Your task to perform on an android device: turn smart compose on in the gmail app Image 0: 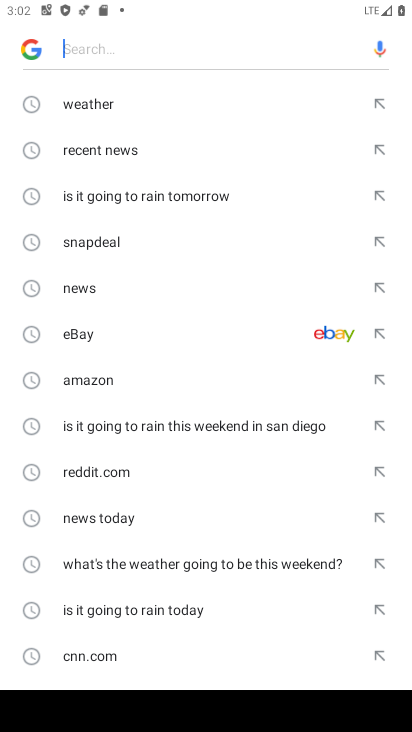
Step 0: press back button
Your task to perform on an android device: turn smart compose on in the gmail app Image 1: 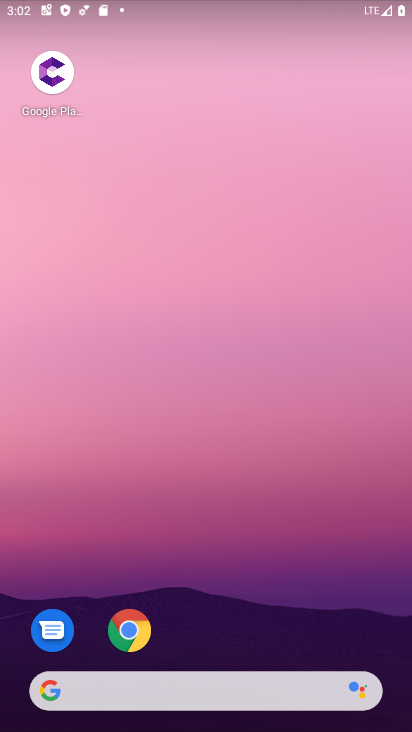
Step 1: drag from (198, 727) to (174, 42)
Your task to perform on an android device: turn smart compose on in the gmail app Image 2: 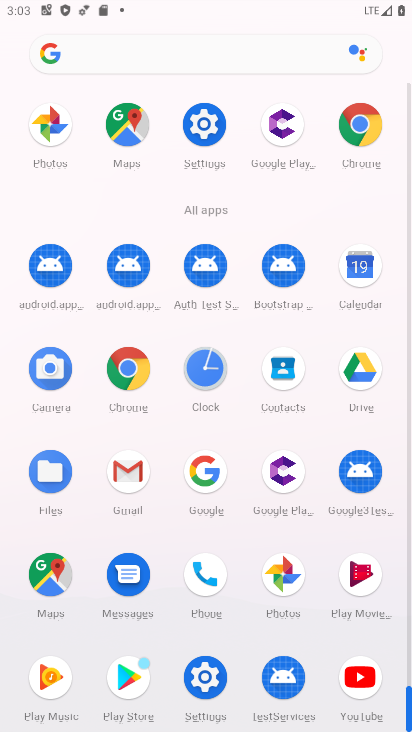
Step 2: click (126, 469)
Your task to perform on an android device: turn smart compose on in the gmail app Image 3: 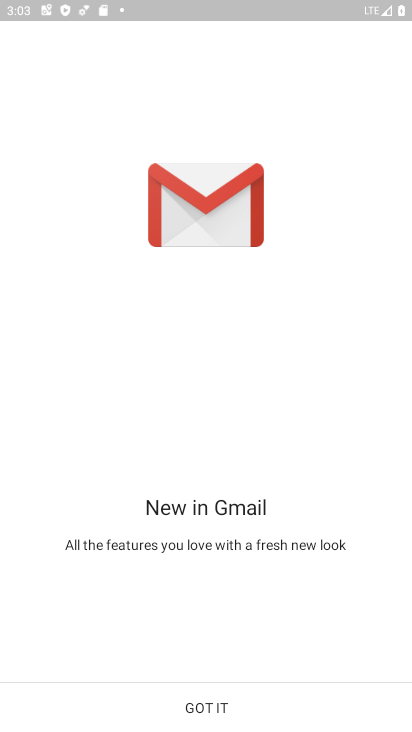
Step 3: click (211, 703)
Your task to perform on an android device: turn smart compose on in the gmail app Image 4: 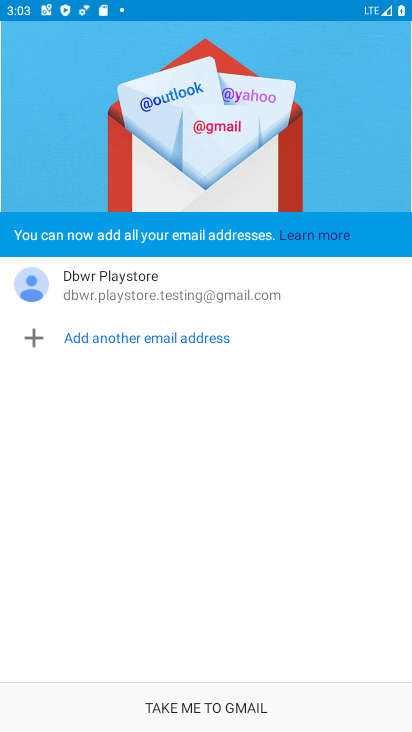
Step 4: click (211, 703)
Your task to perform on an android device: turn smart compose on in the gmail app Image 5: 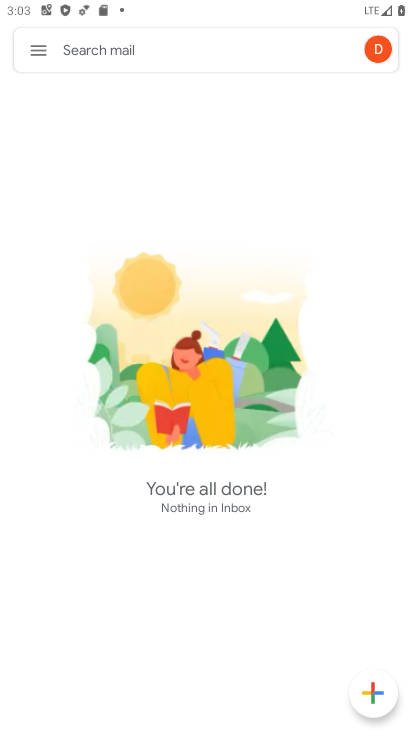
Step 5: click (40, 50)
Your task to perform on an android device: turn smart compose on in the gmail app Image 6: 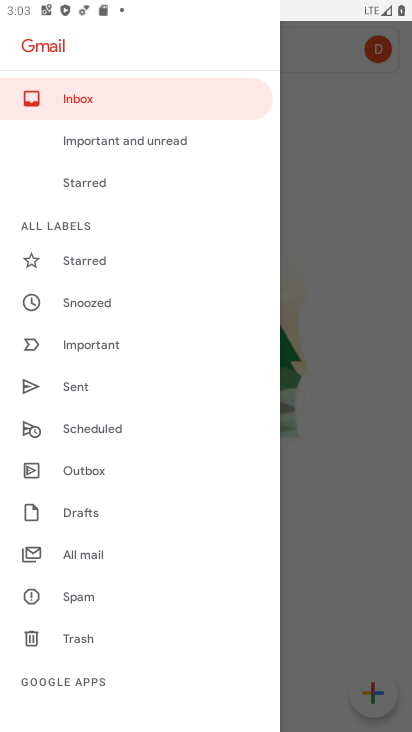
Step 6: drag from (102, 668) to (104, 180)
Your task to perform on an android device: turn smart compose on in the gmail app Image 7: 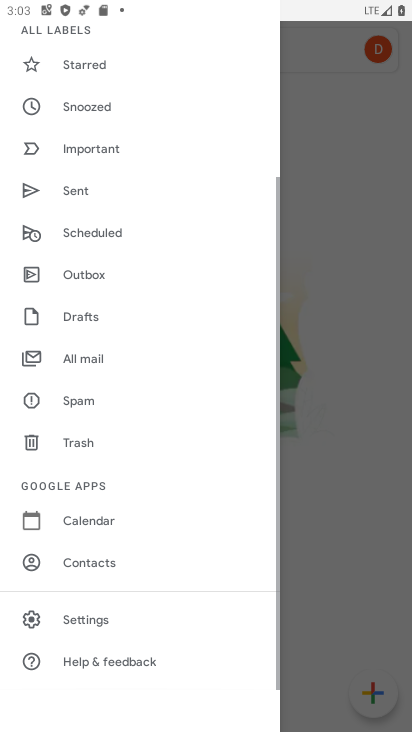
Step 7: click (75, 619)
Your task to perform on an android device: turn smart compose on in the gmail app Image 8: 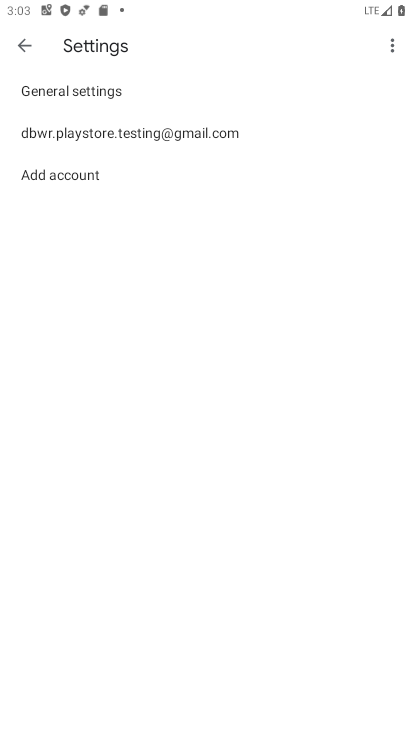
Step 8: click (200, 136)
Your task to perform on an android device: turn smart compose on in the gmail app Image 9: 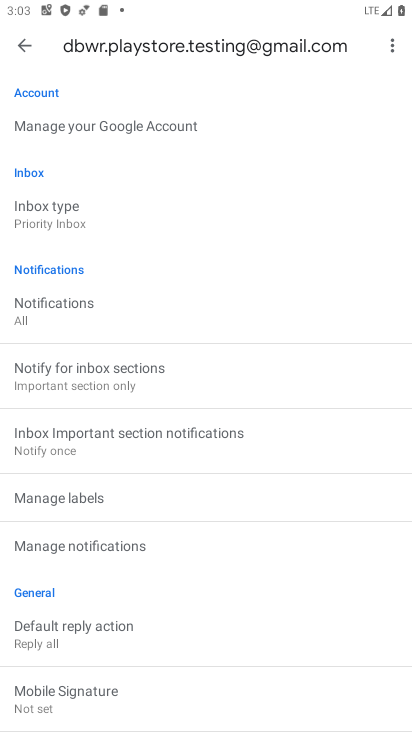
Step 9: task complete